Your task to perform on an android device: Go to wifi settings Image 0: 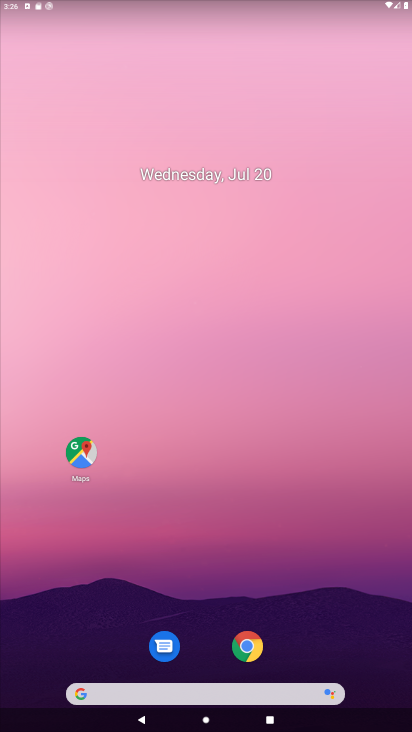
Step 0: drag from (201, 603) to (215, 75)
Your task to perform on an android device: Go to wifi settings Image 1: 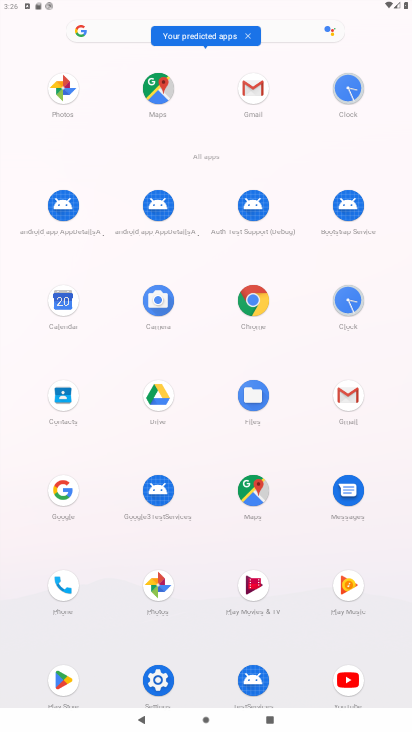
Step 1: click (161, 665)
Your task to perform on an android device: Go to wifi settings Image 2: 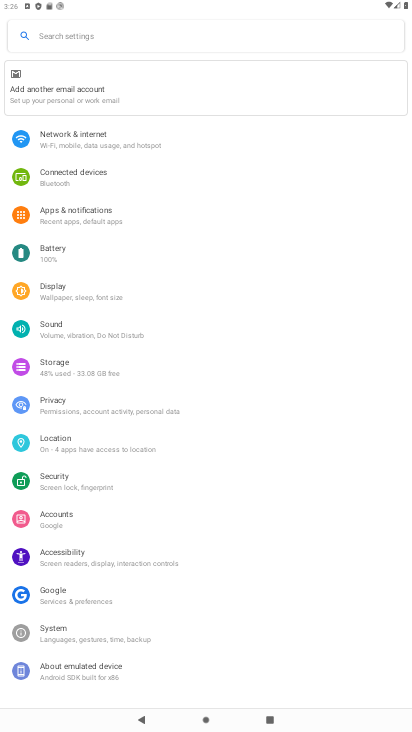
Step 2: click (138, 151)
Your task to perform on an android device: Go to wifi settings Image 3: 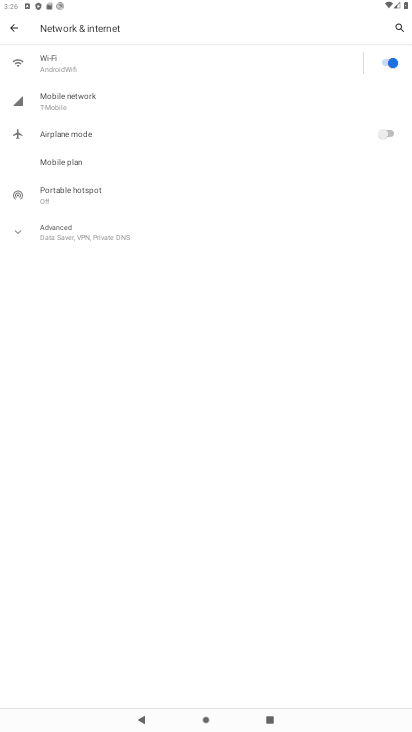
Step 3: click (68, 64)
Your task to perform on an android device: Go to wifi settings Image 4: 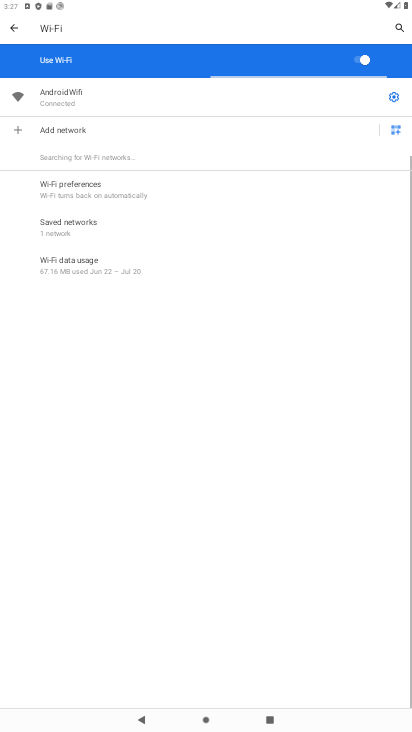
Step 4: task complete